Your task to perform on an android device: turn on data saver in the chrome app Image 0: 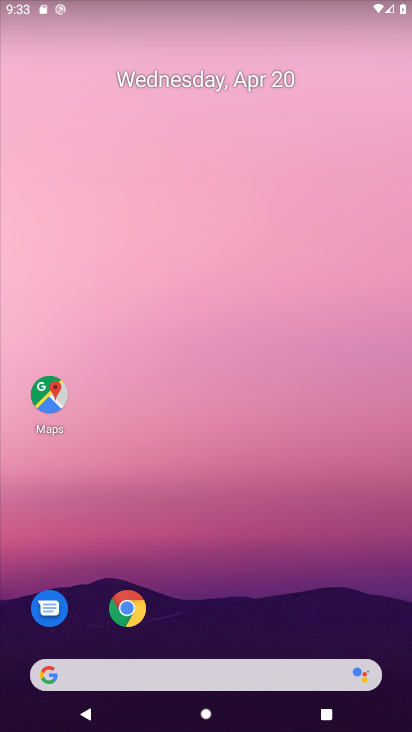
Step 0: drag from (201, 642) to (187, 72)
Your task to perform on an android device: turn on data saver in the chrome app Image 1: 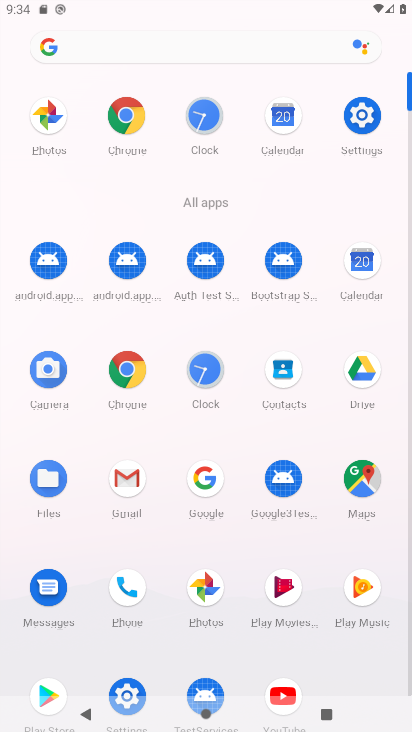
Step 1: click (132, 376)
Your task to perform on an android device: turn on data saver in the chrome app Image 2: 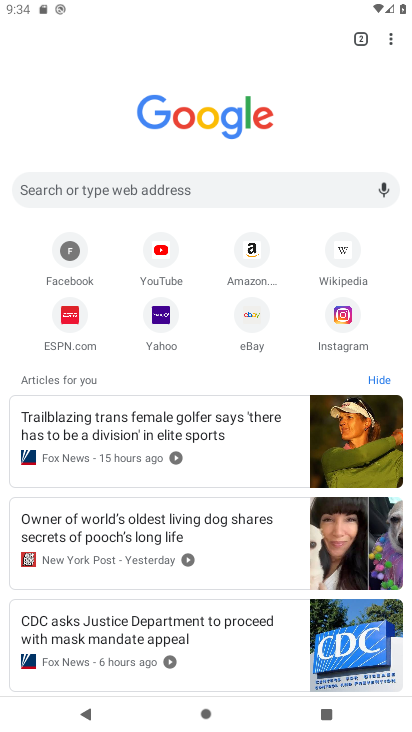
Step 2: click (391, 39)
Your task to perform on an android device: turn on data saver in the chrome app Image 3: 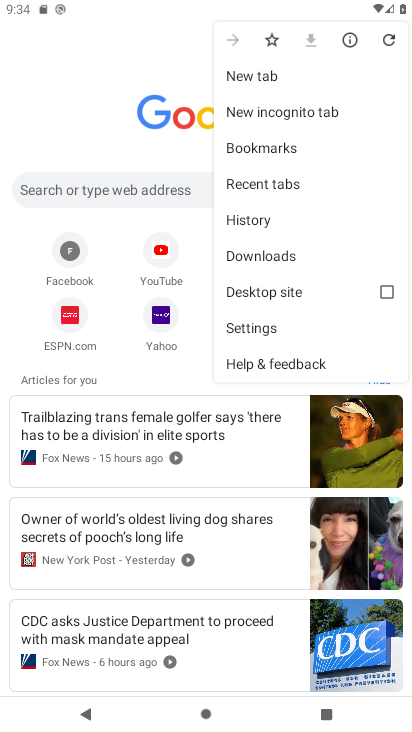
Step 3: click (272, 320)
Your task to perform on an android device: turn on data saver in the chrome app Image 4: 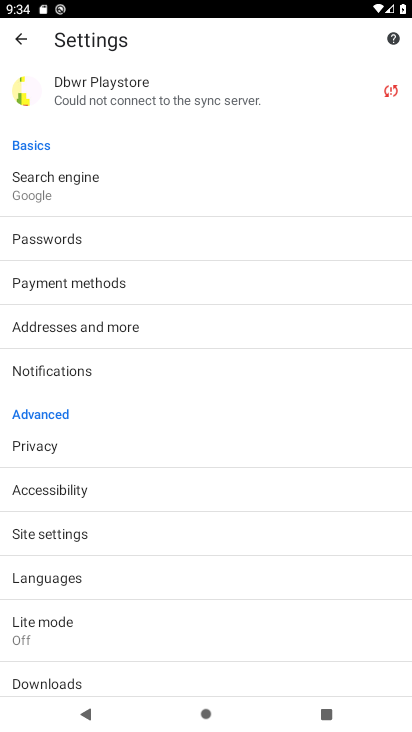
Step 4: click (57, 624)
Your task to perform on an android device: turn on data saver in the chrome app Image 5: 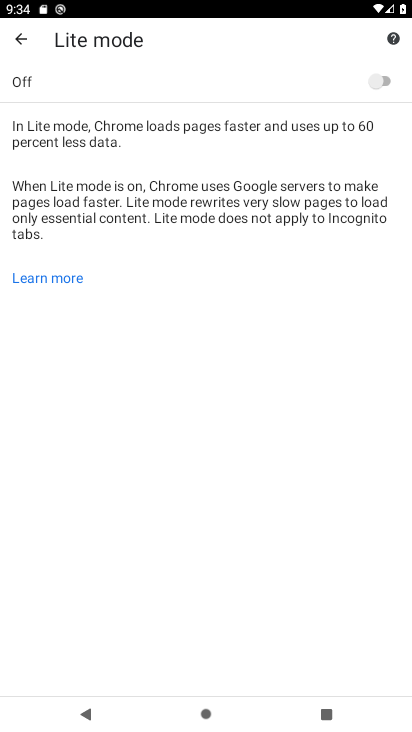
Step 5: click (381, 78)
Your task to perform on an android device: turn on data saver in the chrome app Image 6: 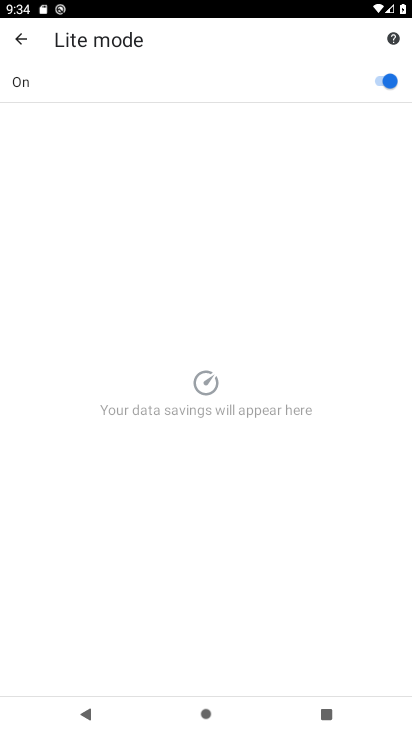
Step 6: task complete